Your task to perform on an android device: What's the weather? Image 0: 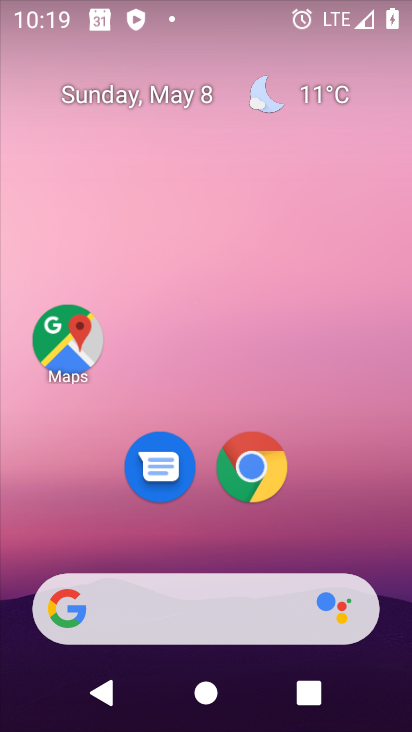
Step 0: click (204, 617)
Your task to perform on an android device: What's the weather? Image 1: 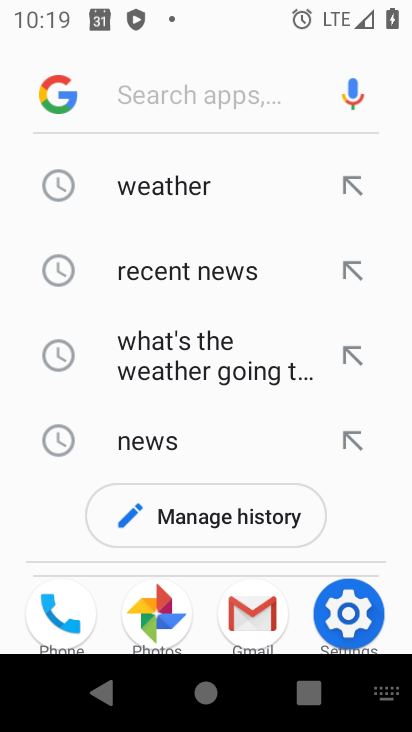
Step 1: click (230, 195)
Your task to perform on an android device: What's the weather? Image 2: 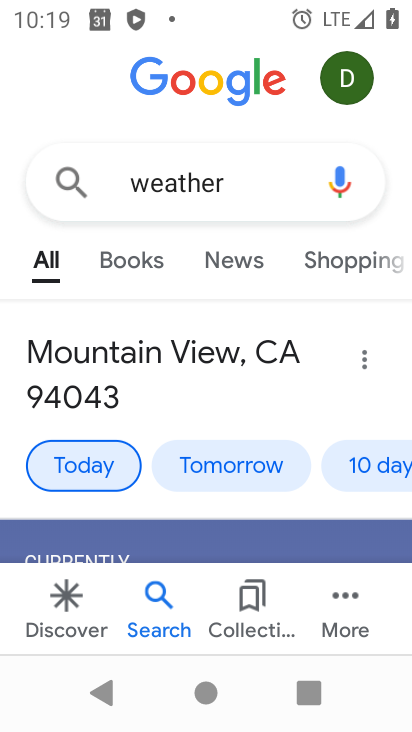
Step 2: task complete